Your task to perform on an android device: What's on my calendar tomorrow? Image 0: 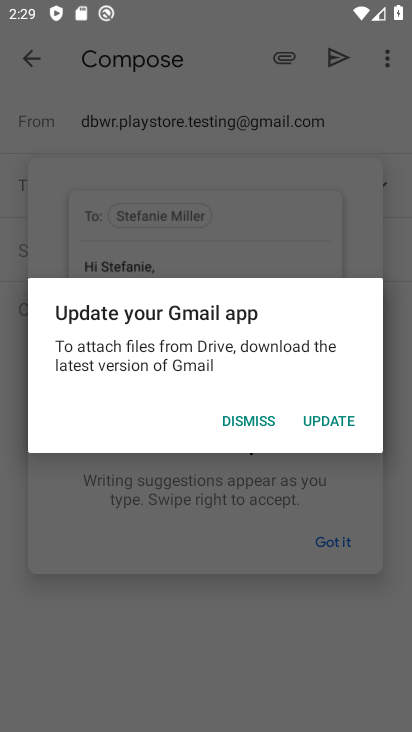
Step 0: press home button
Your task to perform on an android device: What's on my calendar tomorrow? Image 1: 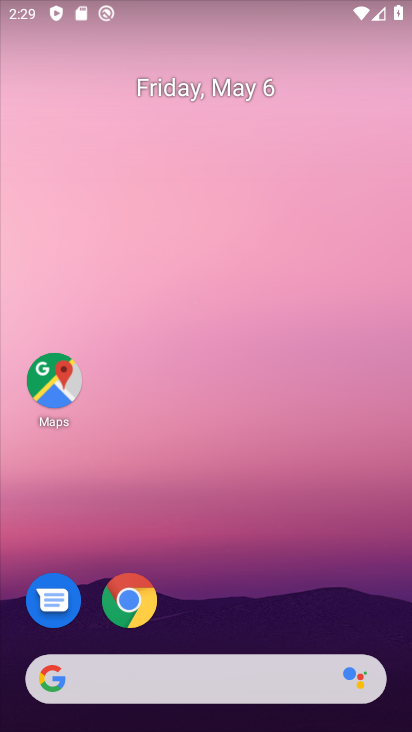
Step 1: drag from (252, 632) to (256, 244)
Your task to perform on an android device: What's on my calendar tomorrow? Image 2: 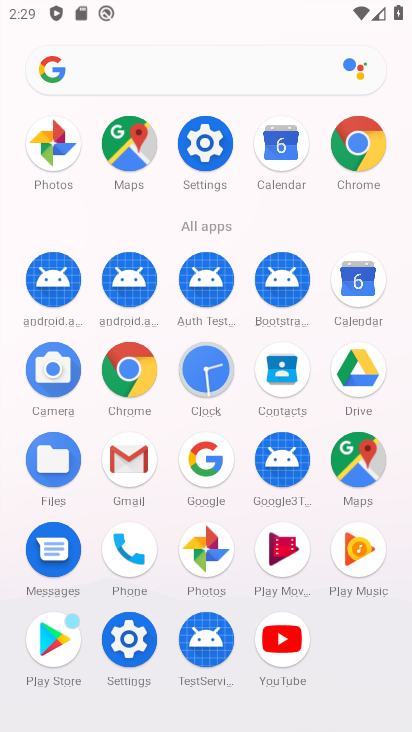
Step 2: click (361, 296)
Your task to perform on an android device: What's on my calendar tomorrow? Image 3: 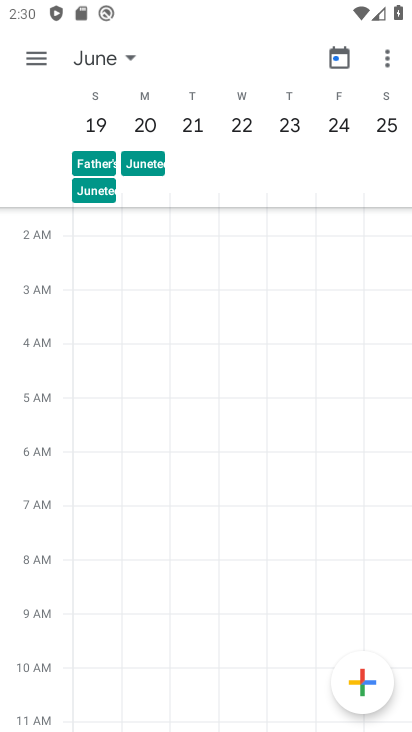
Step 3: click (45, 59)
Your task to perform on an android device: What's on my calendar tomorrow? Image 4: 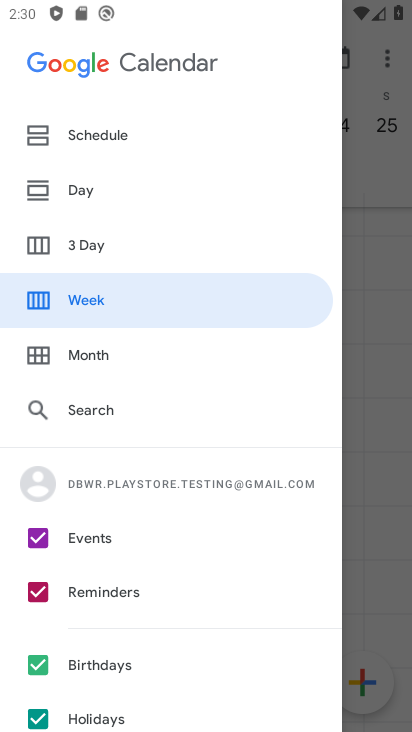
Step 4: click (74, 187)
Your task to perform on an android device: What's on my calendar tomorrow? Image 5: 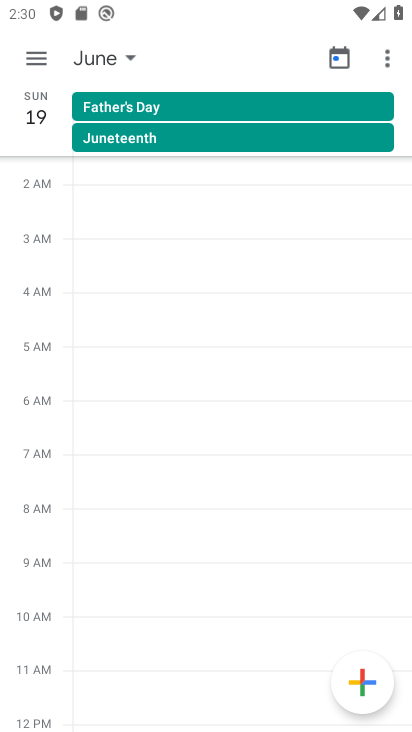
Step 5: click (132, 61)
Your task to perform on an android device: What's on my calendar tomorrow? Image 6: 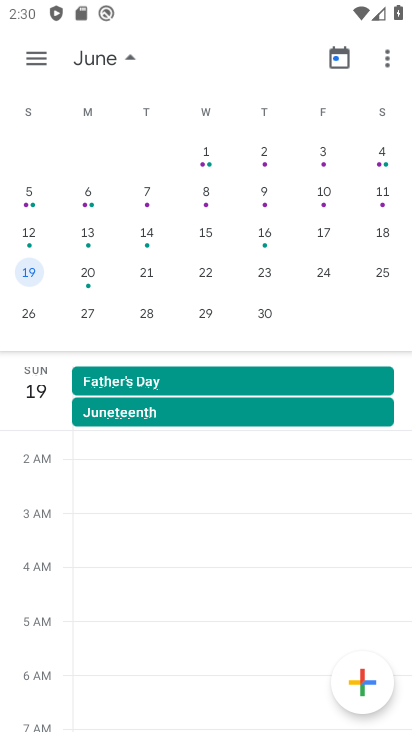
Step 6: drag from (123, 215) to (393, 215)
Your task to perform on an android device: What's on my calendar tomorrow? Image 7: 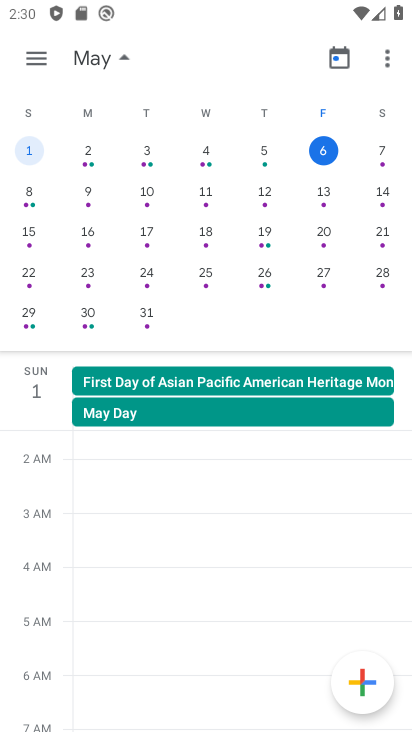
Step 7: click (383, 152)
Your task to perform on an android device: What's on my calendar tomorrow? Image 8: 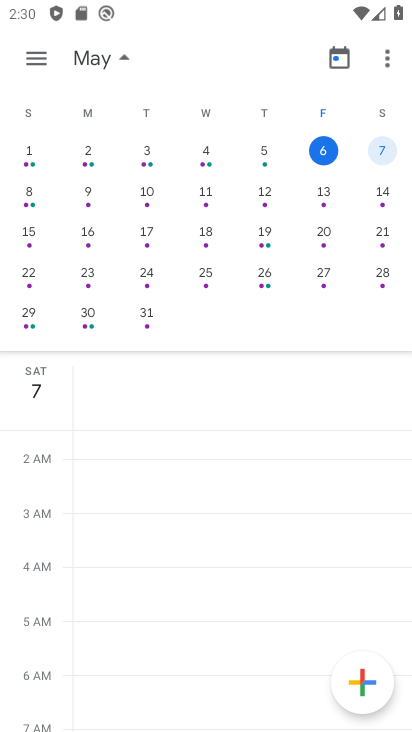
Step 8: click (92, 54)
Your task to perform on an android device: What's on my calendar tomorrow? Image 9: 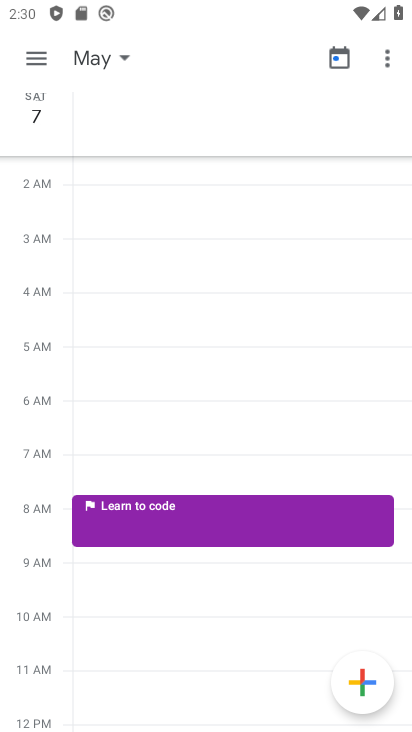
Step 9: task complete